Your task to perform on an android device: toggle airplane mode Image 0: 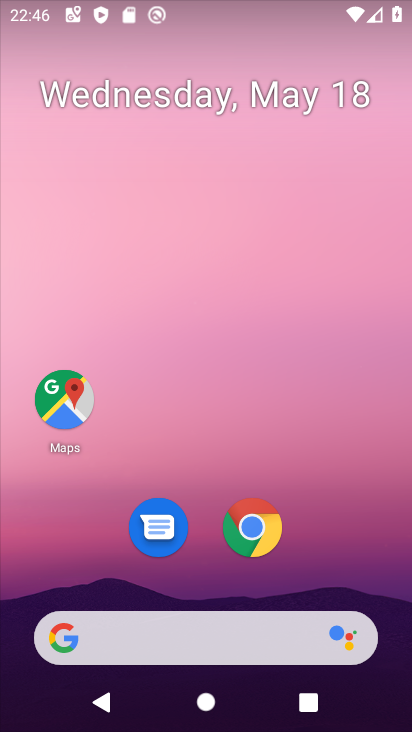
Step 0: drag from (354, 553) to (237, 205)
Your task to perform on an android device: toggle airplane mode Image 1: 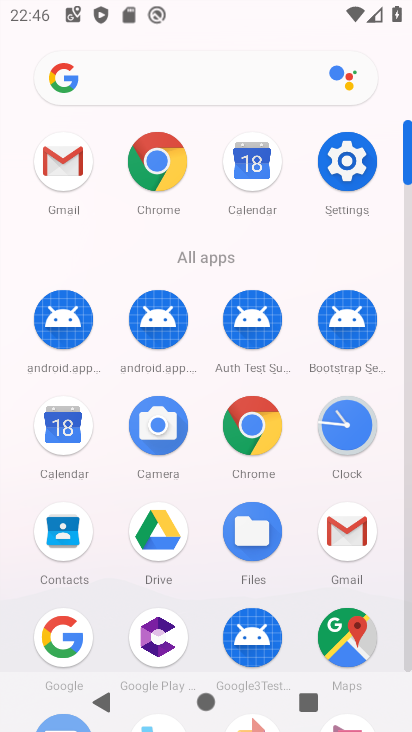
Step 1: click (340, 167)
Your task to perform on an android device: toggle airplane mode Image 2: 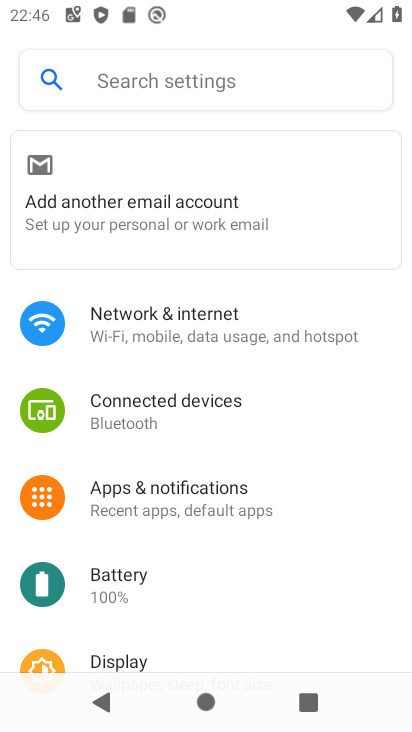
Step 2: click (258, 329)
Your task to perform on an android device: toggle airplane mode Image 3: 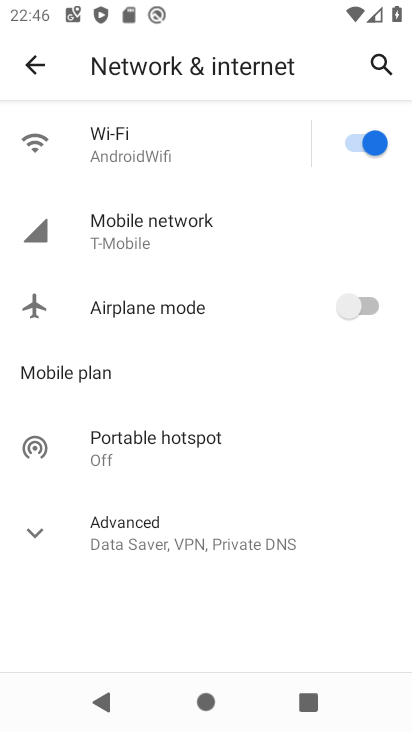
Step 3: click (339, 304)
Your task to perform on an android device: toggle airplane mode Image 4: 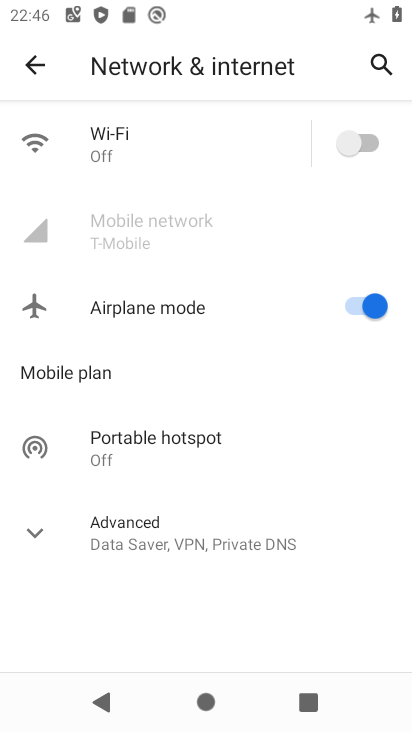
Step 4: click (370, 135)
Your task to perform on an android device: toggle airplane mode Image 5: 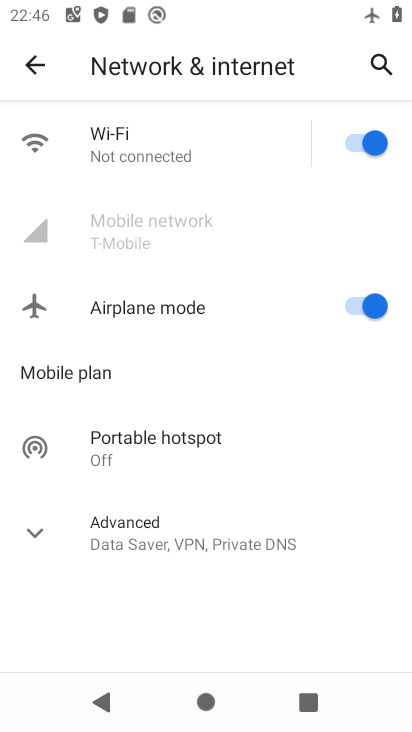
Step 5: task complete